Your task to perform on an android device: change your default location settings in chrome Image 0: 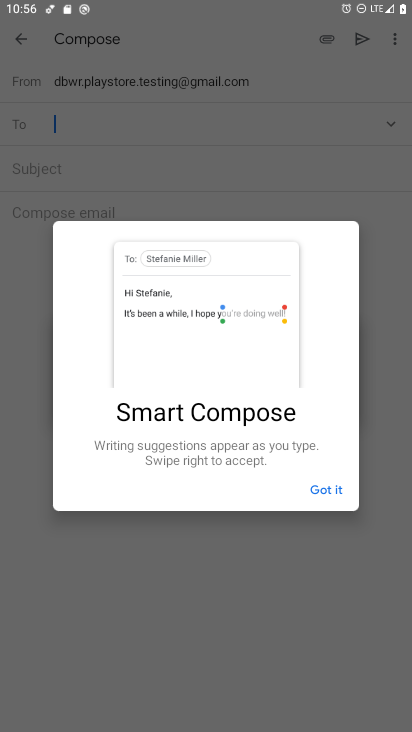
Step 0: press home button
Your task to perform on an android device: change your default location settings in chrome Image 1: 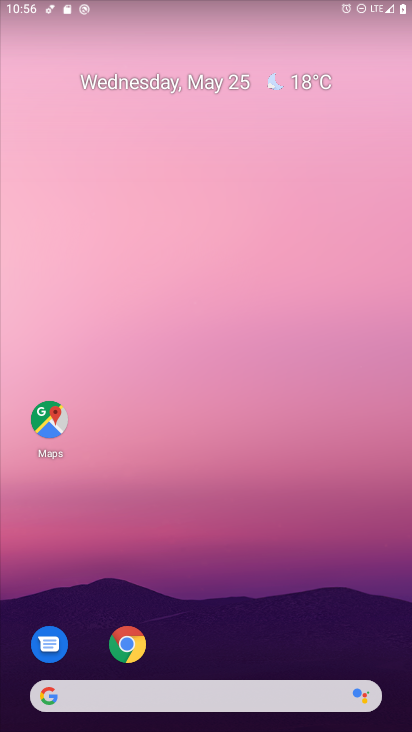
Step 1: press back button
Your task to perform on an android device: change your default location settings in chrome Image 2: 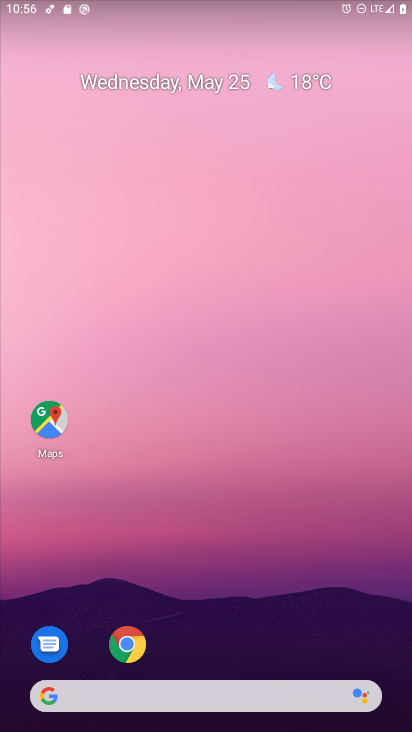
Step 2: click (123, 639)
Your task to perform on an android device: change your default location settings in chrome Image 3: 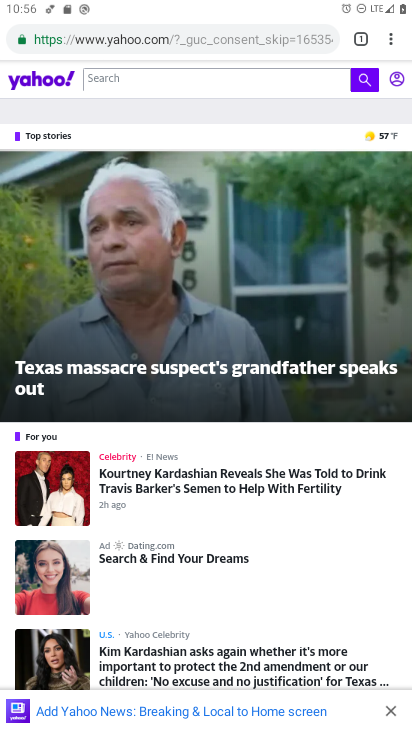
Step 3: click (388, 38)
Your task to perform on an android device: change your default location settings in chrome Image 4: 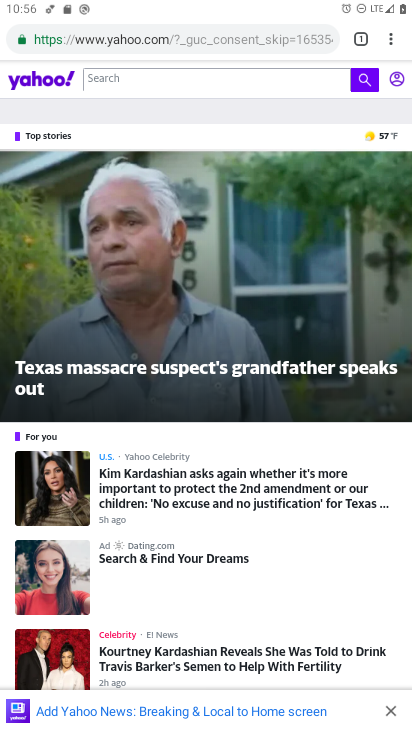
Step 4: click (388, 38)
Your task to perform on an android device: change your default location settings in chrome Image 5: 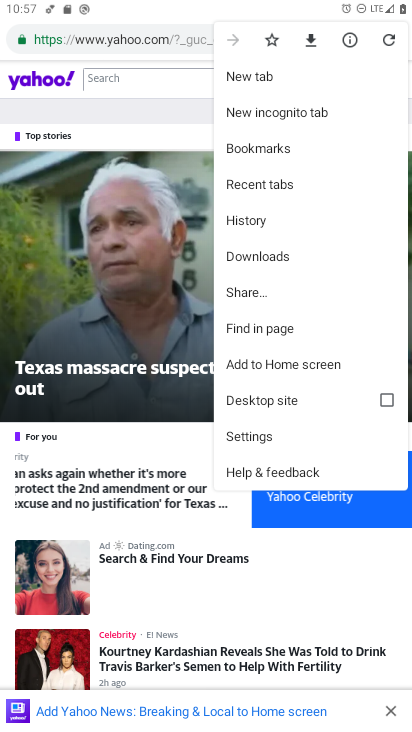
Step 5: click (295, 437)
Your task to perform on an android device: change your default location settings in chrome Image 6: 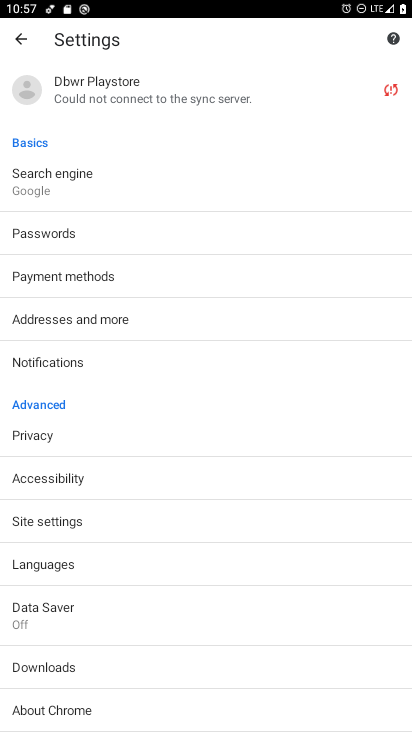
Step 6: click (92, 523)
Your task to perform on an android device: change your default location settings in chrome Image 7: 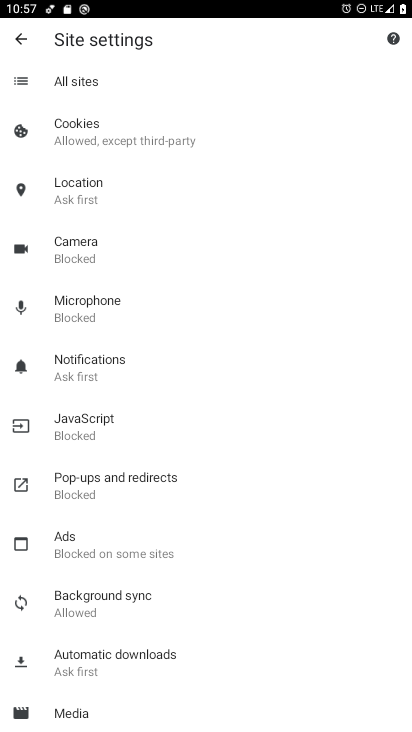
Step 7: click (122, 188)
Your task to perform on an android device: change your default location settings in chrome Image 8: 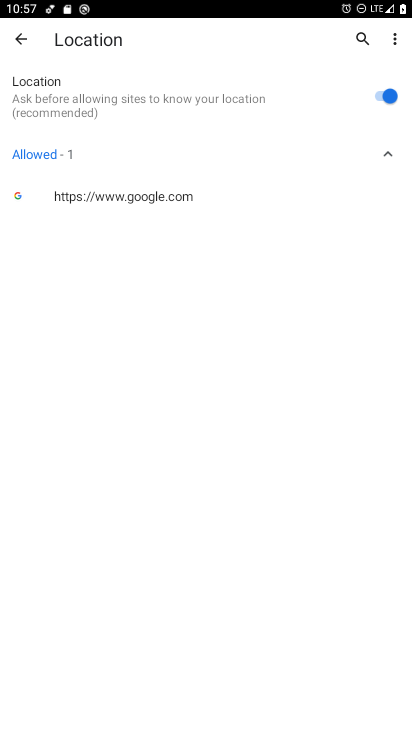
Step 8: click (380, 93)
Your task to perform on an android device: change your default location settings in chrome Image 9: 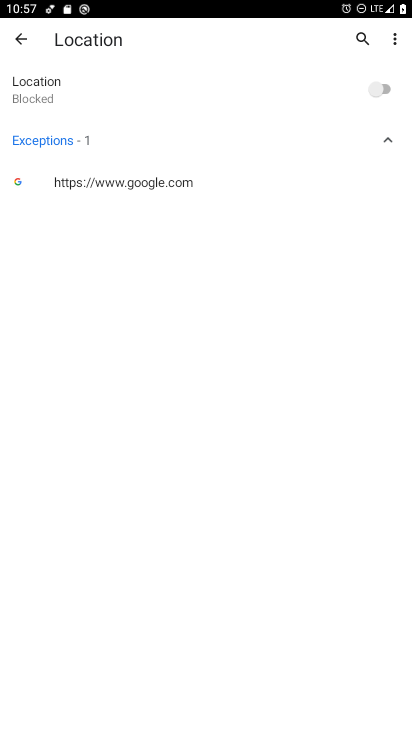
Step 9: task complete